Your task to perform on an android device: Open the calendar app, open the side menu, and click the "Day" option Image 0: 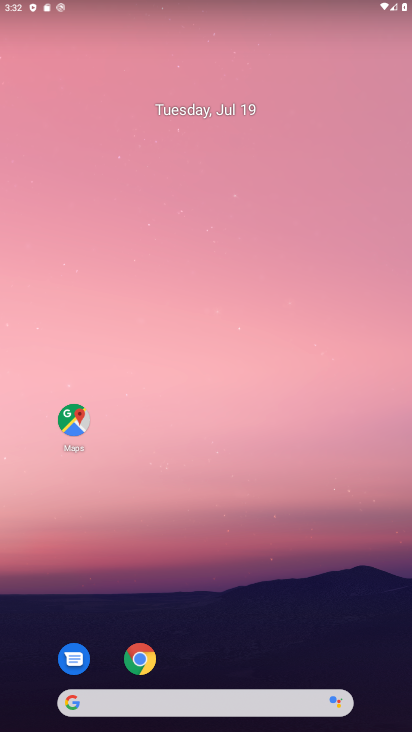
Step 0: drag from (247, 562) to (299, 58)
Your task to perform on an android device: Open the calendar app, open the side menu, and click the "Day" option Image 1: 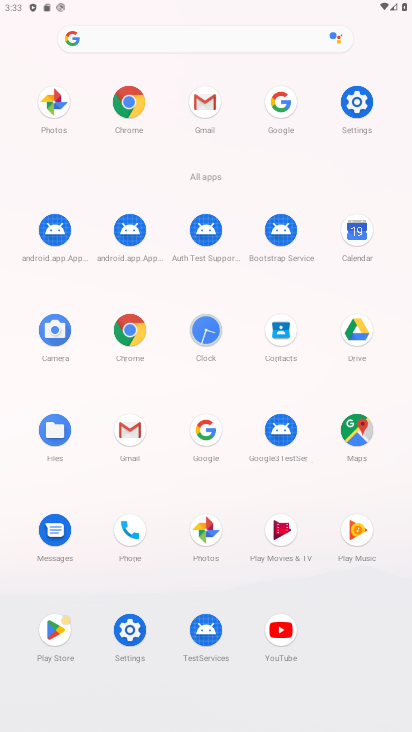
Step 1: click (340, 233)
Your task to perform on an android device: Open the calendar app, open the side menu, and click the "Day" option Image 2: 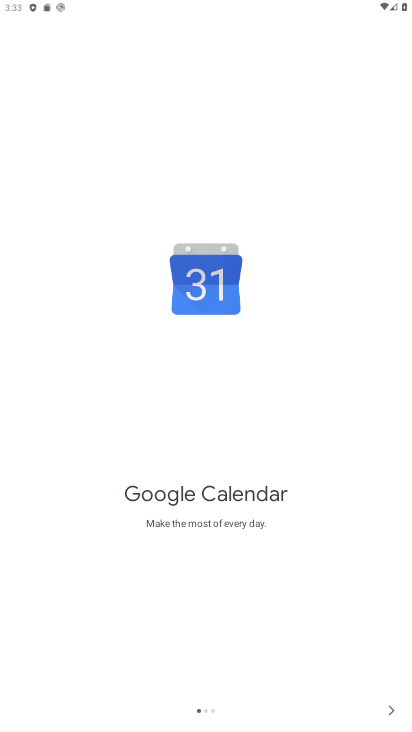
Step 2: click (384, 712)
Your task to perform on an android device: Open the calendar app, open the side menu, and click the "Day" option Image 3: 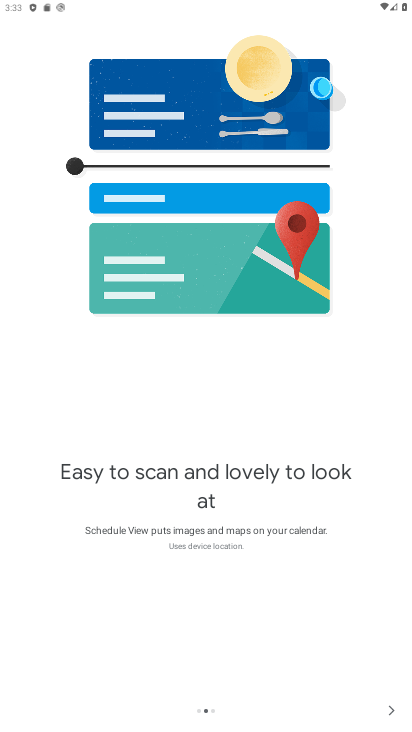
Step 3: click (392, 705)
Your task to perform on an android device: Open the calendar app, open the side menu, and click the "Day" option Image 4: 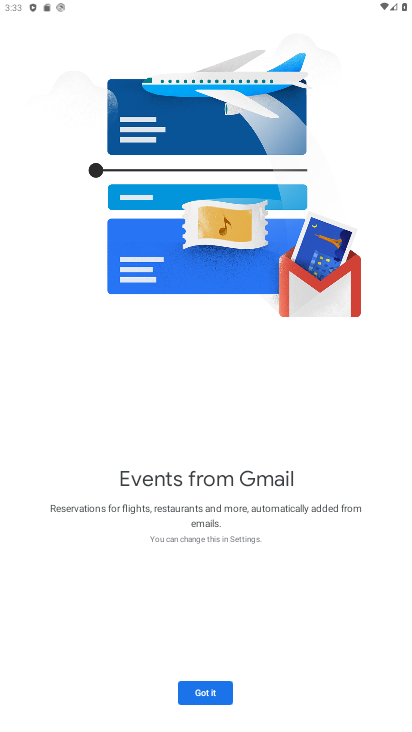
Step 4: click (209, 691)
Your task to perform on an android device: Open the calendar app, open the side menu, and click the "Day" option Image 5: 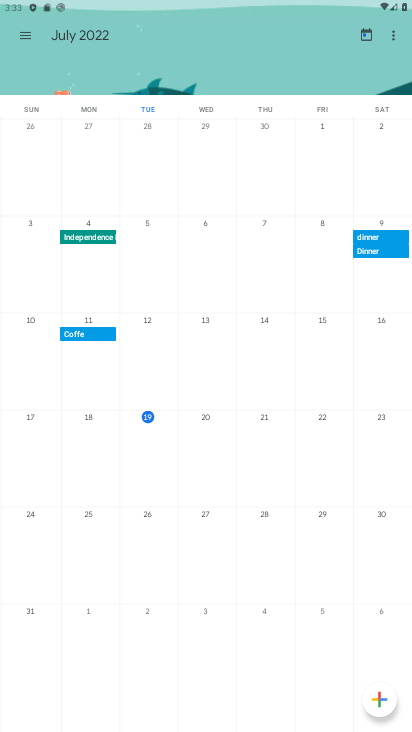
Step 5: click (27, 44)
Your task to perform on an android device: Open the calendar app, open the side menu, and click the "Day" option Image 6: 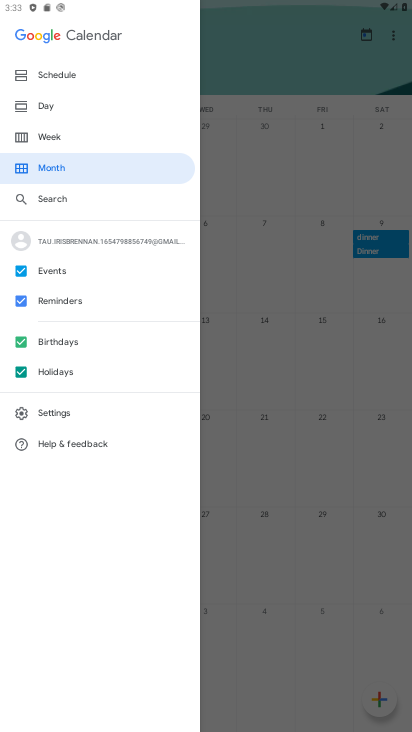
Step 6: click (44, 99)
Your task to perform on an android device: Open the calendar app, open the side menu, and click the "Day" option Image 7: 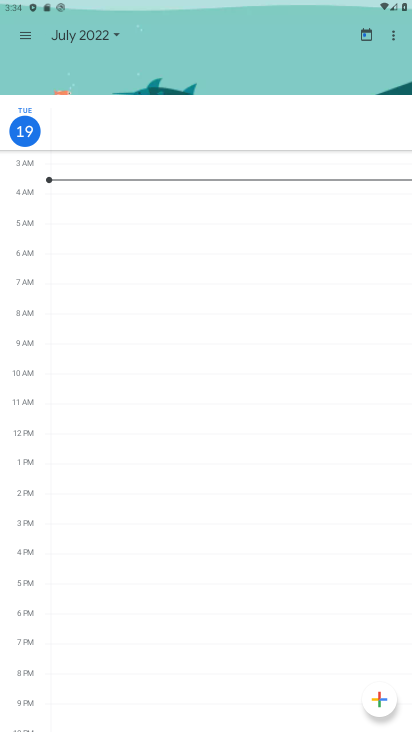
Step 7: task complete